Your task to perform on an android device: Go to Maps Image 0: 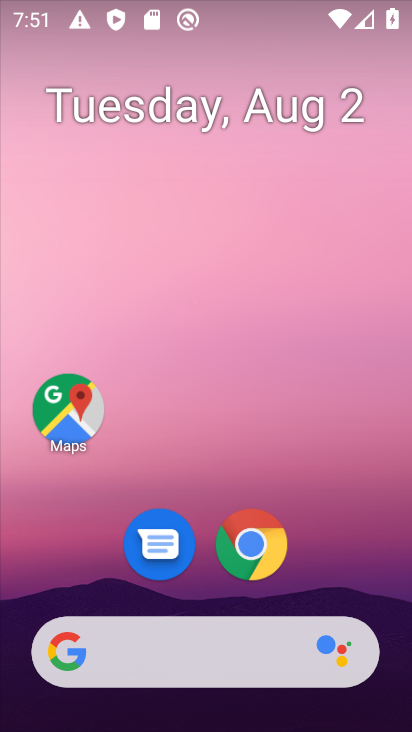
Step 0: click (45, 412)
Your task to perform on an android device: Go to Maps Image 1: 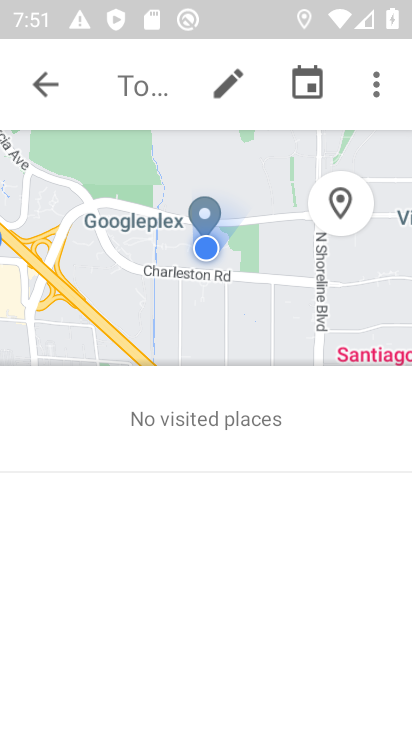
Step 1: click (42, 69)
Your task to perform on an android device: Go to Maps Image 2: 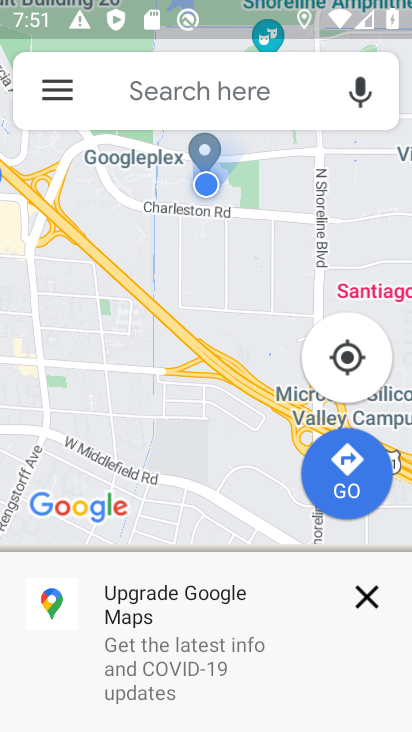
Step 2: task complete